Your task to perform on an android device: What's the weather today? Image 0: 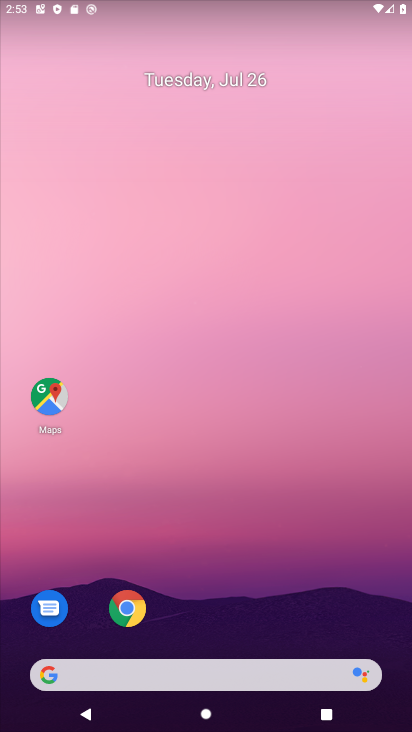
Step 0: drag from (221, 711) to (256, 499)
Your task to perform on an android device: What's the weather today? Image 1: 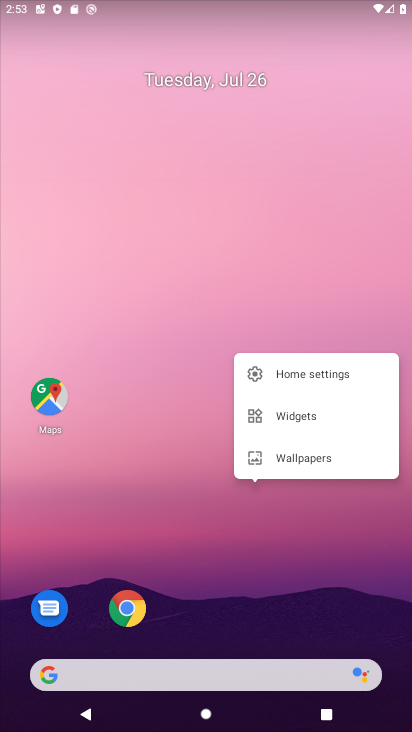
Step 1: click (230, 677)
Your task to perform on an android device: What's the weather today? Image 2: 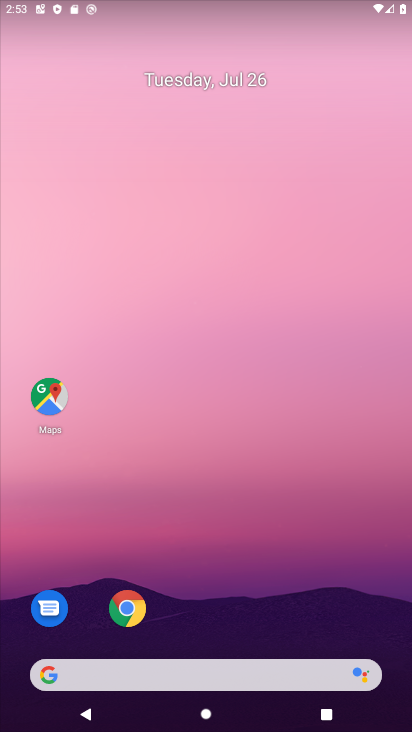
Step 2: click (292, 678)
Your task to perform on an android device: What's the weather today? Image 3: 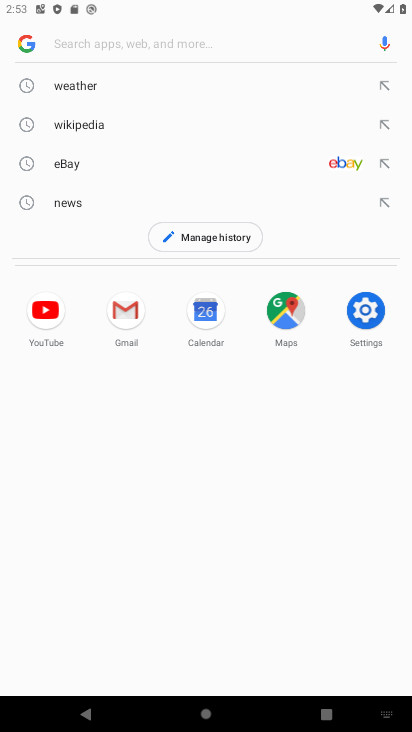
Step 3: type "What's the weather today?"
Your task to perform on an android device: What's the weather today? Image 4: 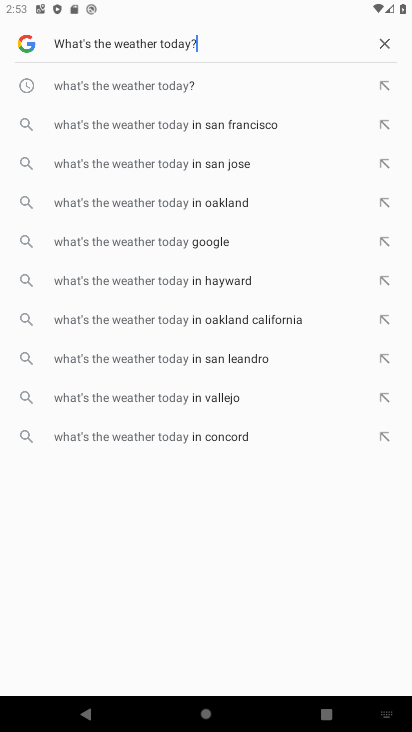
Step 4: press enter
Your task to perform on an android device: What's the weather today? Image 5: 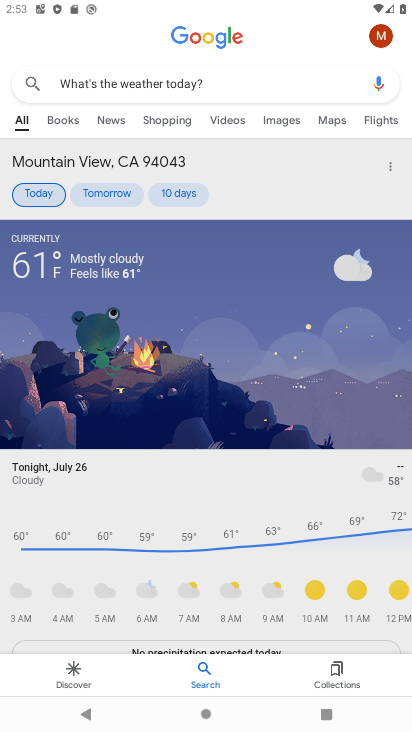
Step 5: task complete